Your task to perform on an android device: change the clock display to show seconds Image 0: 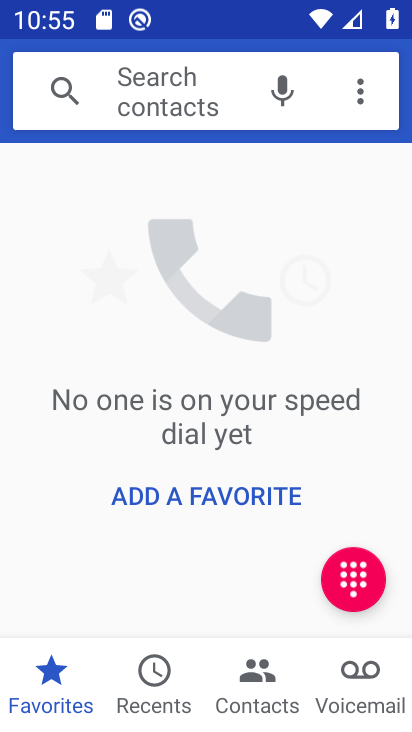
Step 0: press home button
Your task to perform on an android device: change the clock display to show seconds Image 1: 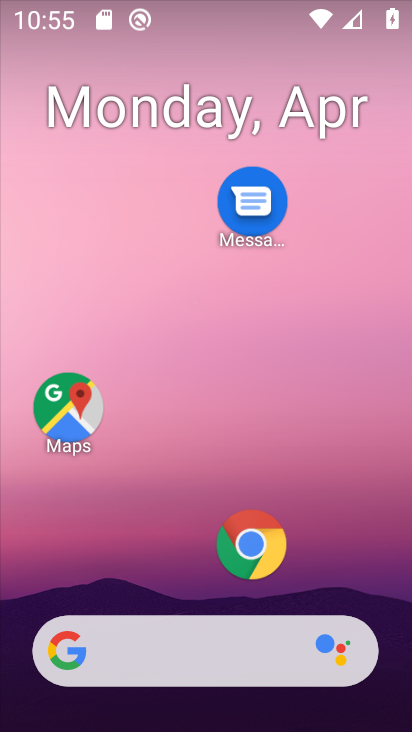
Step 1: drag from (192, 585) to (224, 109)
Your task to perform on an android device: change the clock display to show seconds Image 2: 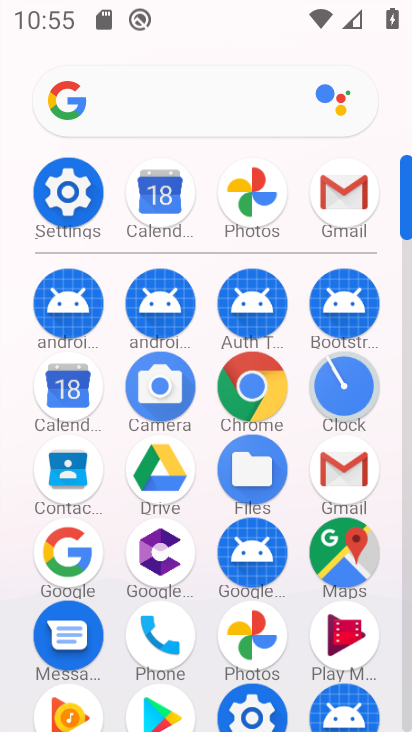
Step 2: click (346, 382)
Your task to perform on an android device: change the clock display to show seconds Image 3: 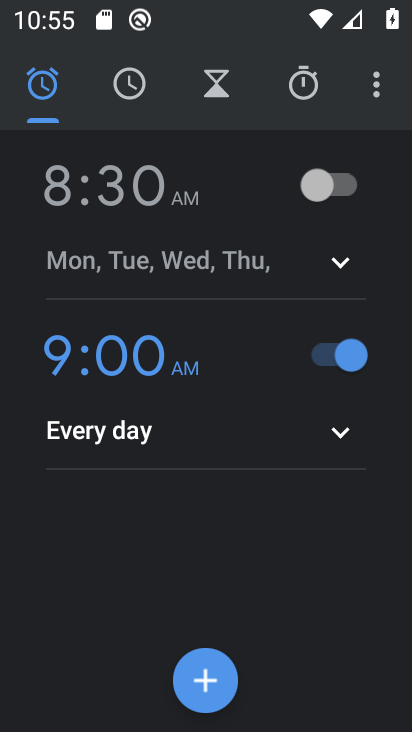
Step 3: click (377, 77)
Your task to perform on an android device: change the clock display to show seconds Image 4: 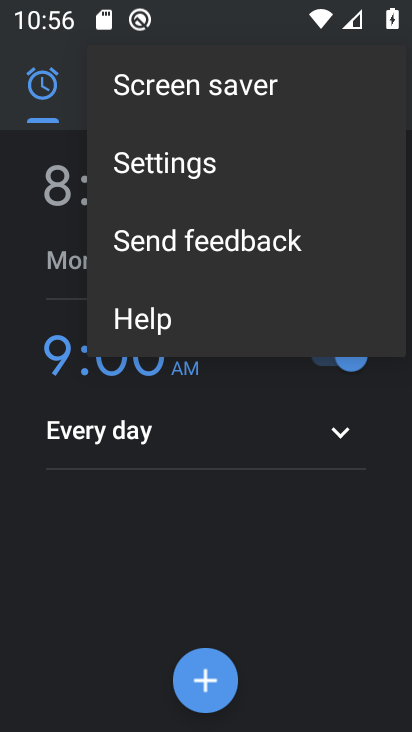
Step 4: click (233, 157)
Your task to perform on an android device: change the clock display to show seconds Image 5: 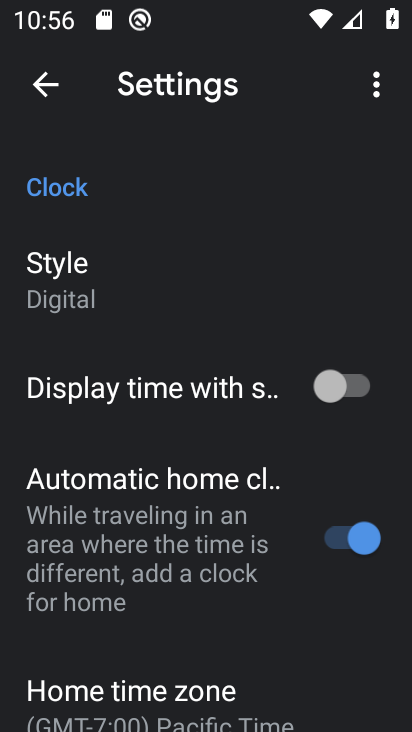
Step 5: click (358, 381)
Your task to perform on an android device: change the clock display to show seconds Image 6: 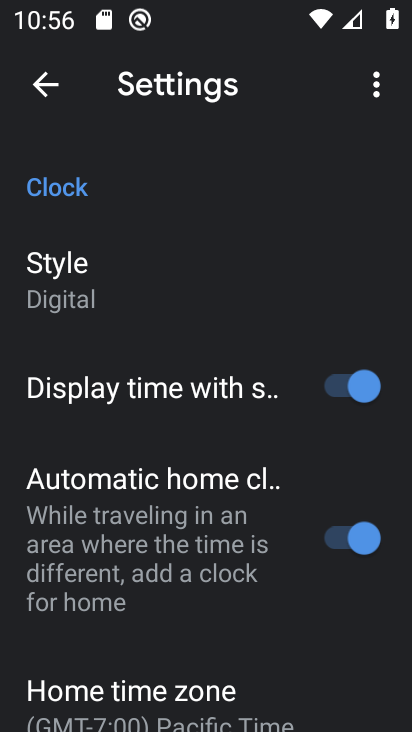
Step 6: task complete